Your task to perform on an android device: Is it going to rain tomorrow? Image 0: 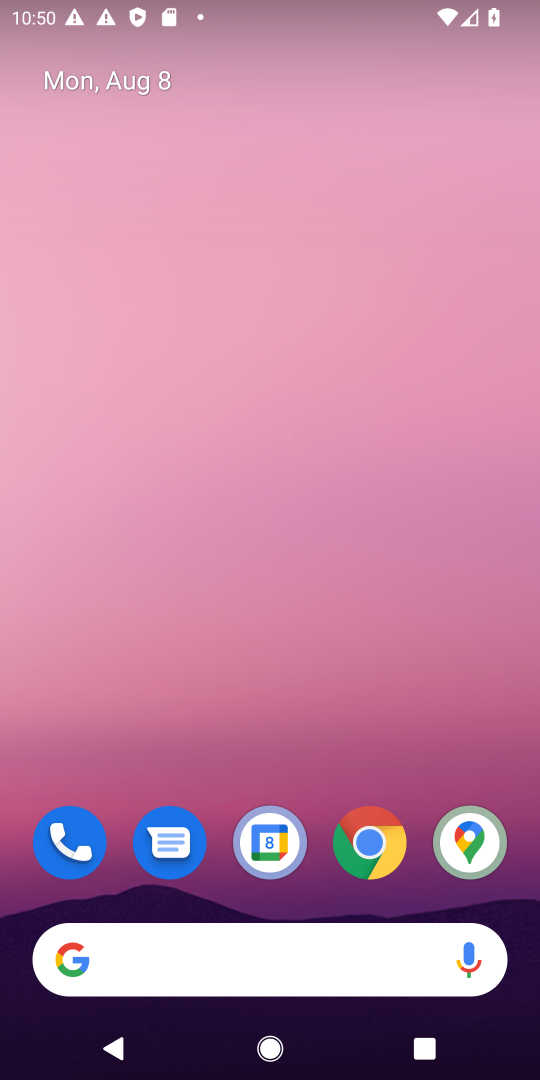
Step 0: click (220, 981)
Your task to perform on an android device: Is it going to rain tomorrow? Image 1: 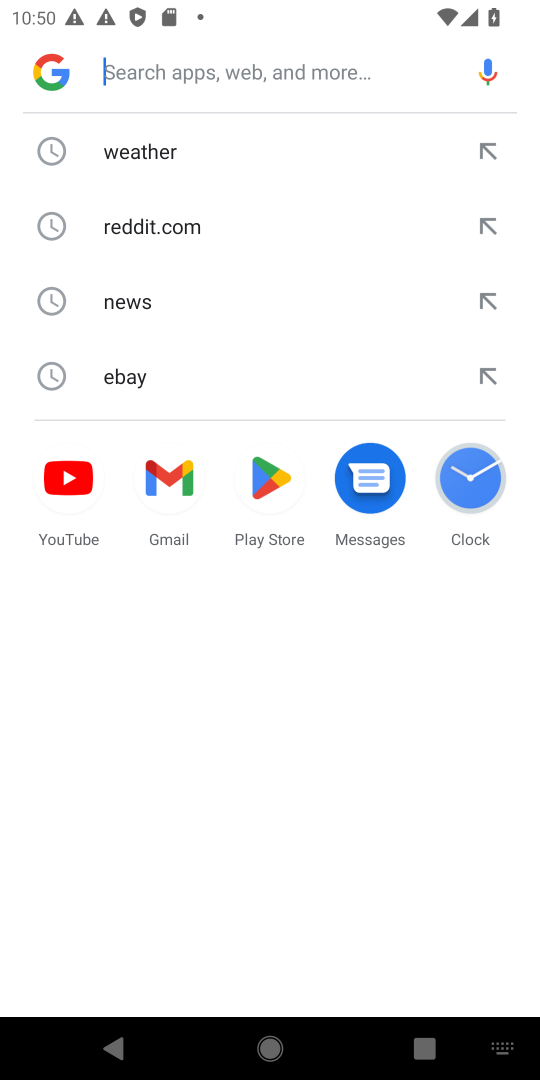
Step 1: type "is it going to to rain tomorrow"
Your task to perform on an android device: Is it going to rain tomorrow? Image 2: 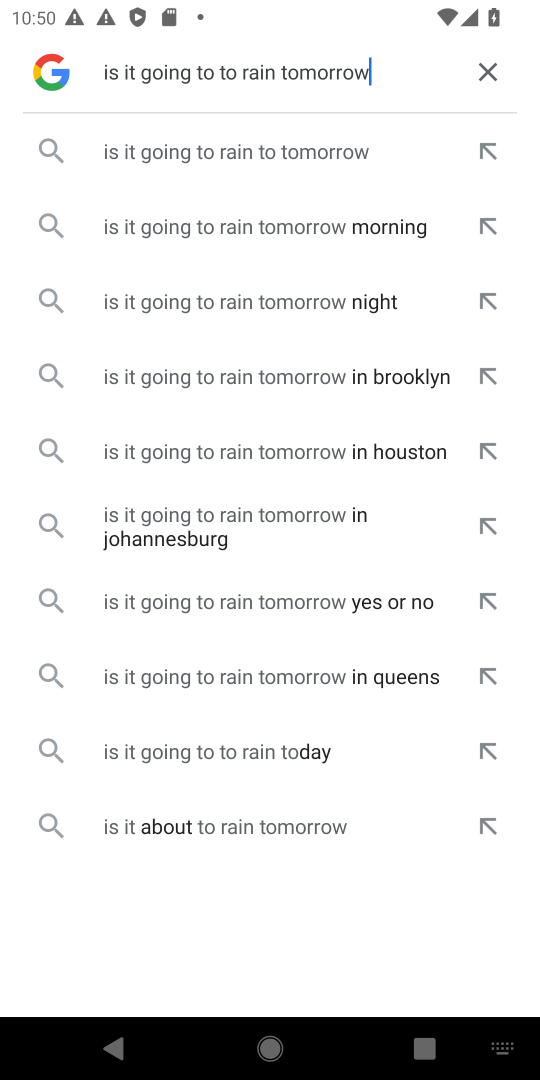
Step 2: click (222, 147)
Your task to perform on an android device: Is it going to rain tomorrow? Image 3: 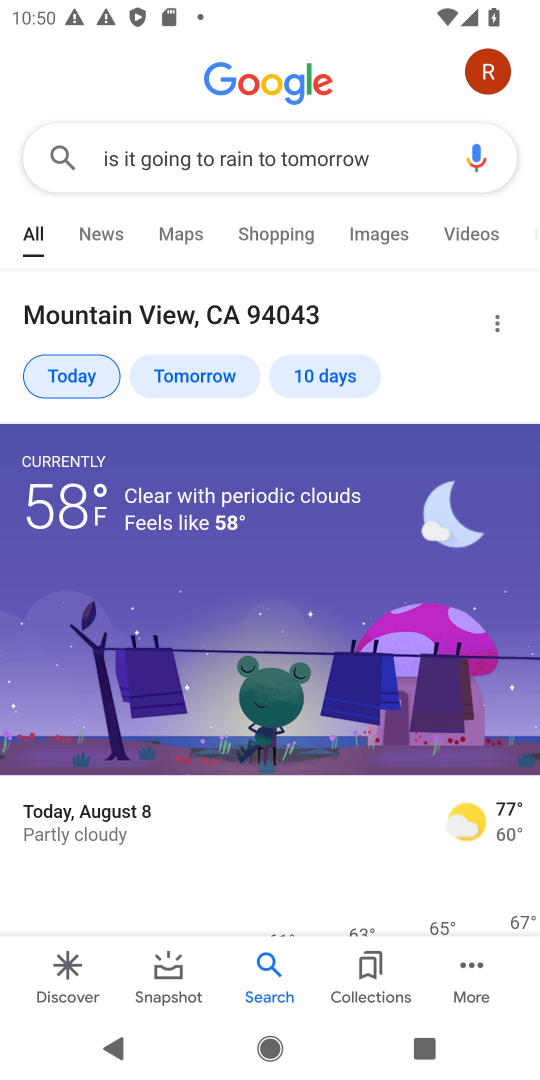
Step 3: task complete